Your task to perform on an android device: turn off notifications in google photos Image 0: 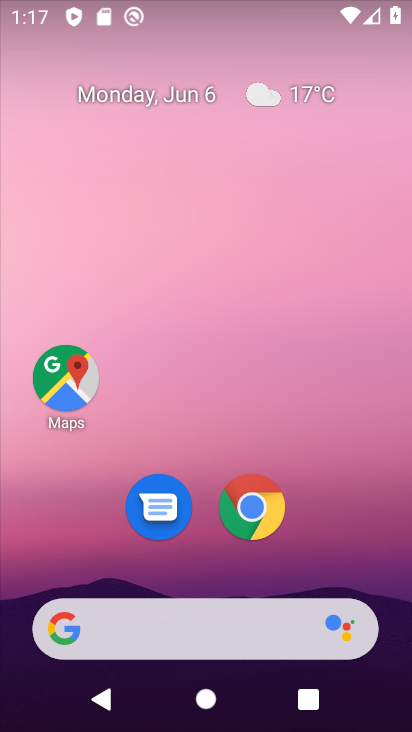
Step 0: drag from (283, 656) to (262, 175)
Your task to perform on an android device: turn off notifications in google photos Image 1: 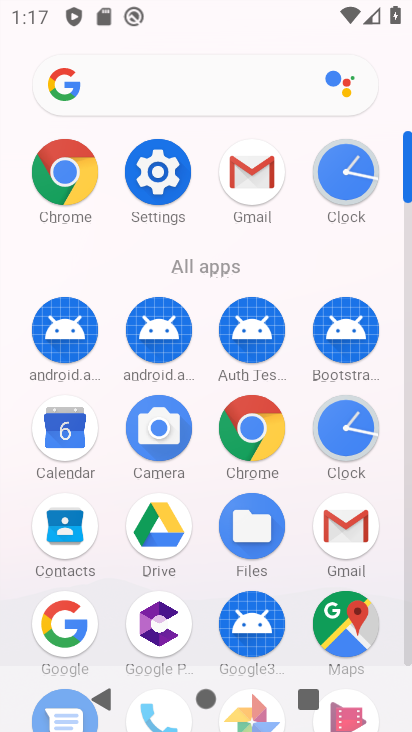
Step 1: drag from (199, 561) to (210, 394)
Your task to perform on an android device: turn off notifications in google photos Image 2: 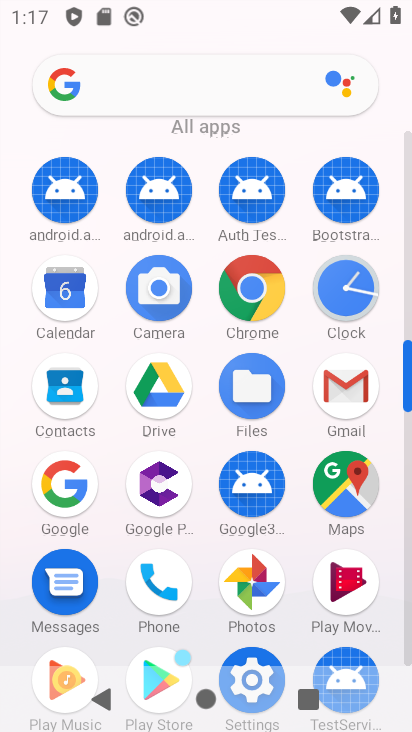
Step 2: click (271, 571)
Your task to perform on an android device: turn off notifications in google photos Image 3: 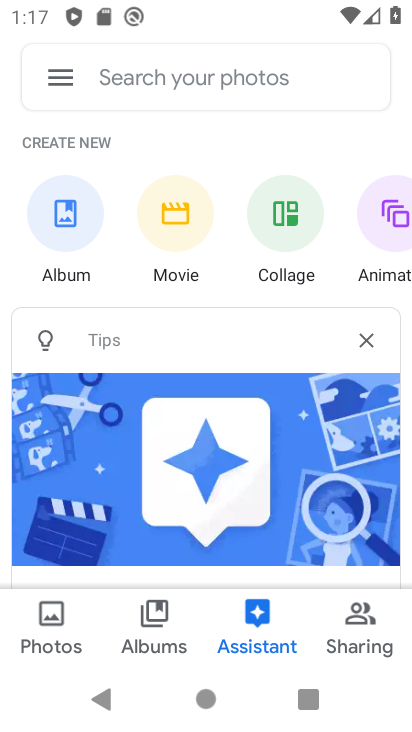
Step 3: click (52, 72)
Your task to perform on an android device: turn off notifications in google photos Image 4: 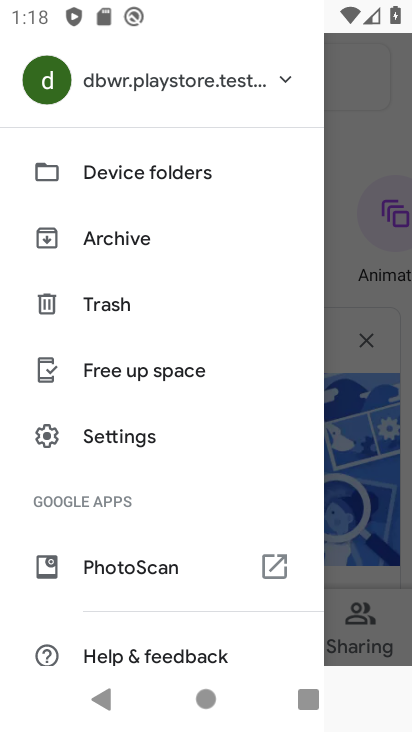
Step 4: click (98, 433)
Your task to perform on an android device: turn off notifications in google photos Image 5: 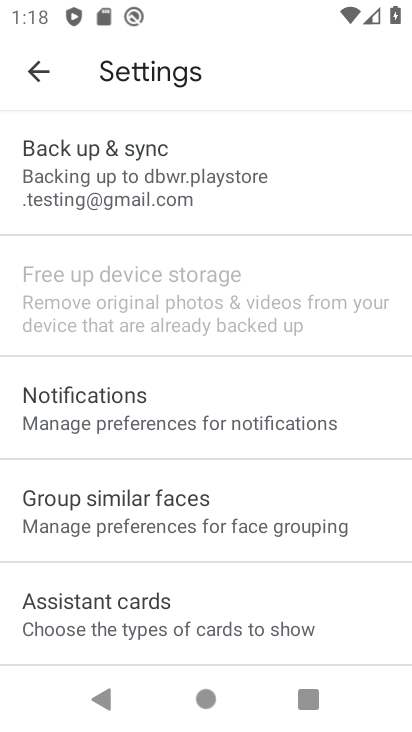
Step 5: click (99, 430)
Your task to perform on an android device: turn off notifications in google photos Image 6: 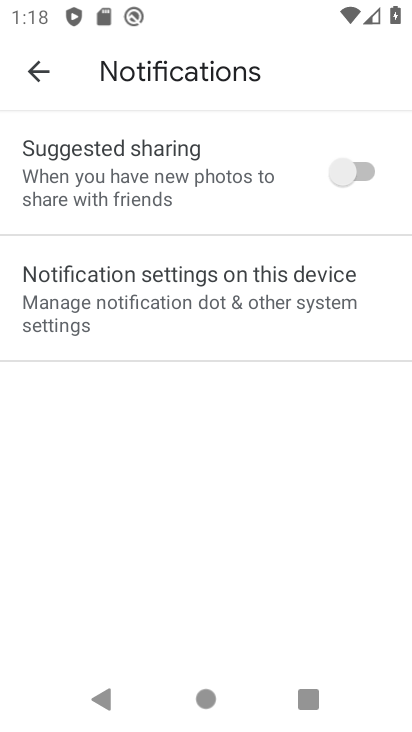
Step 6: click (213, 279)
Your task to perform on an android device: turn off notifications in google photos Image 7: 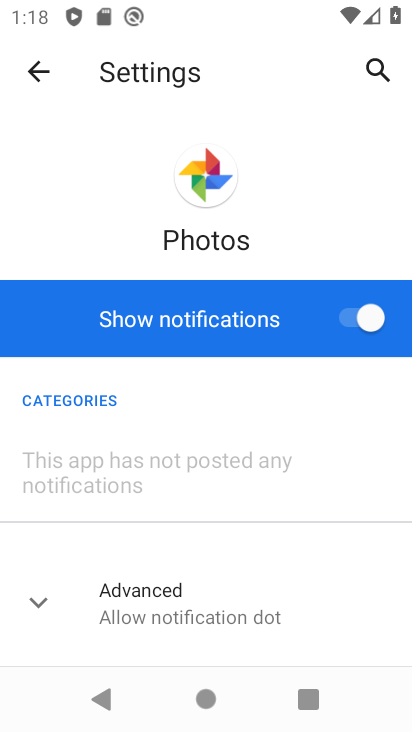
Step 7: click (342, 326)
Your task to perform on an android device: turn off notifications in google photos Image 8: 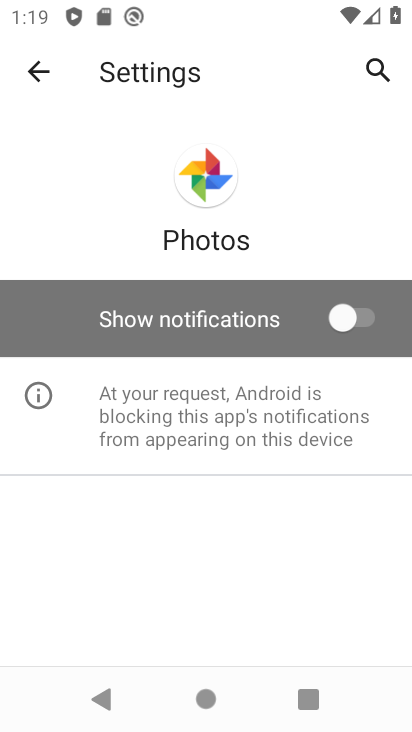
Step 8: task complete